Your task to perform on an android device: turn on data saver in the chrome app Image 0: 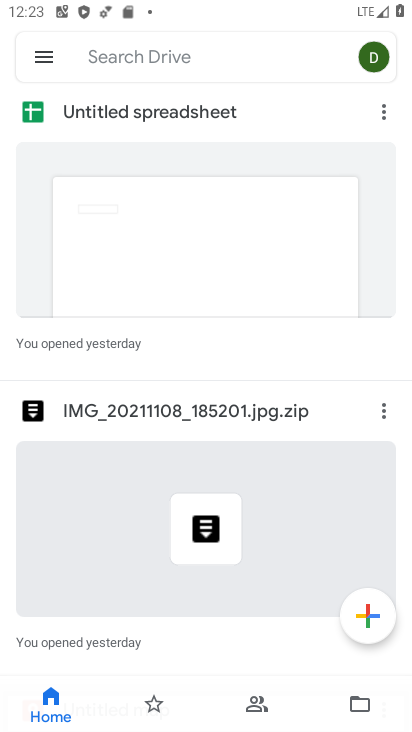
Step 0: press home button
Your task to perform on an android device: turn on data saver in the chrome app Image 1: 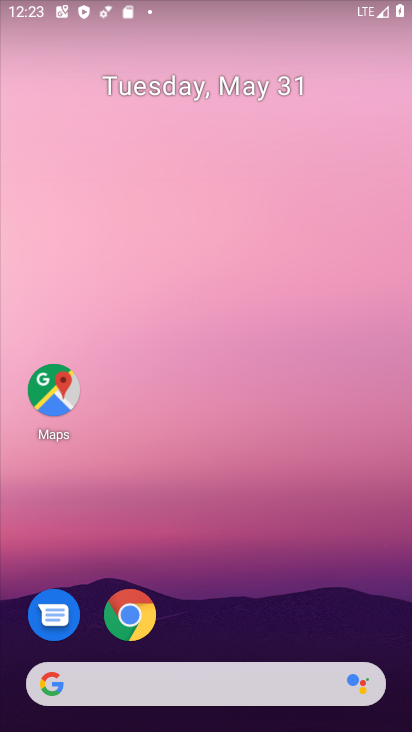
Step 1: click (133, 607)
Your task to perform on an android device: turn on data saver in the chrome app Image 2: 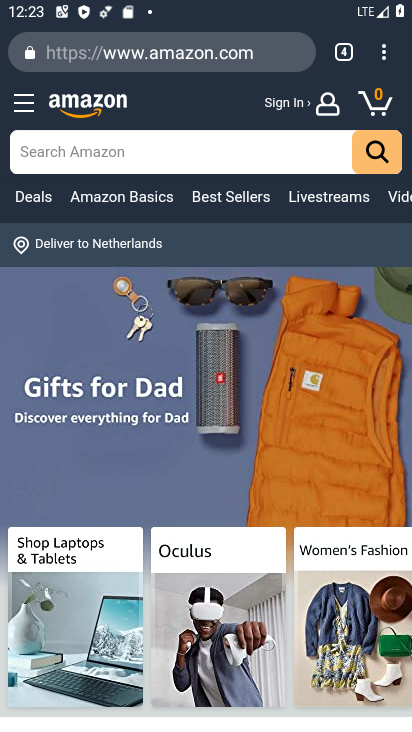
Step 2: click (389, 52)
Your task to perform on an android device: turn on data saver in the chrome app Image 3: 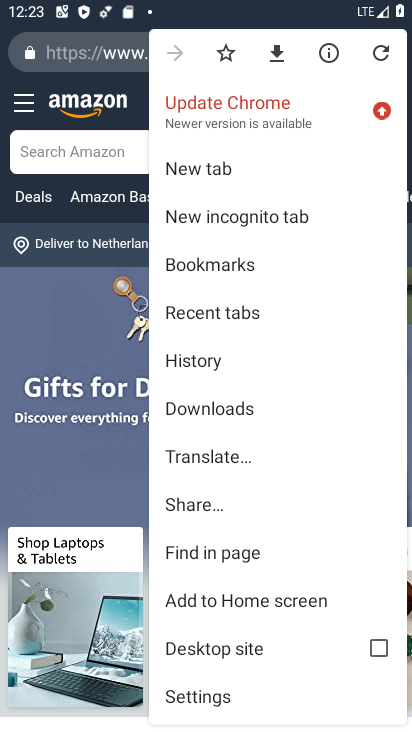
Step 3: click (193, 690)
Your task to perform on an android device: turn on data saver in the chrome app Image 4: 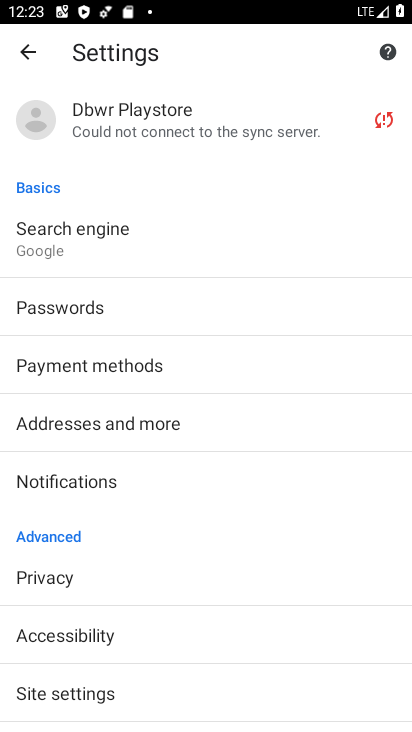
Step 4: drag from (132, 648) to (223, 157)
Your task to perform on an android device: turn on data saver in the chrome app Image 5: 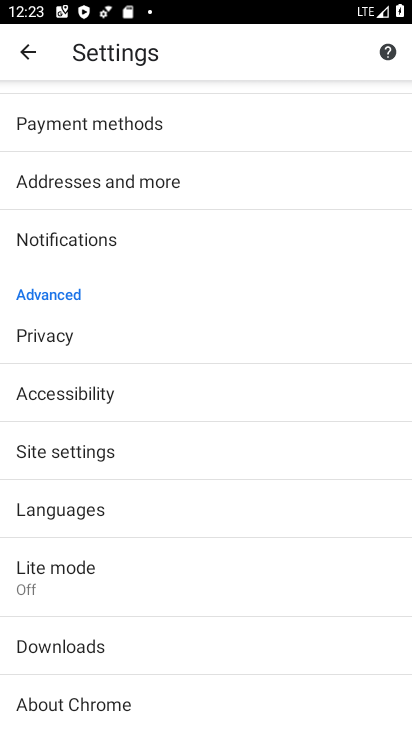
Step 5: click (64, 593)
Your task to perform on an android device: turn on data saver in the chrome app Image 6: 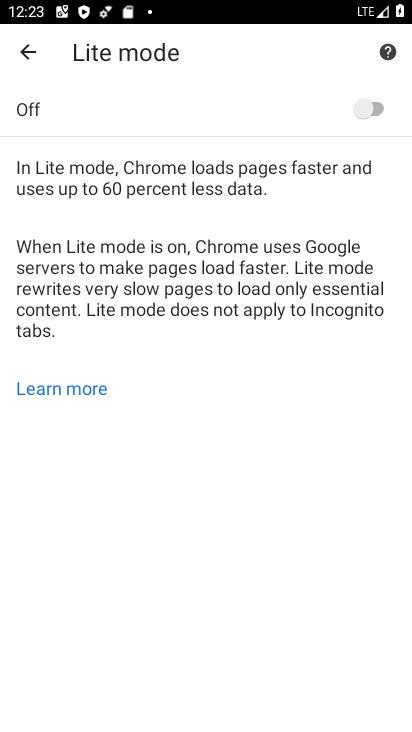
Step 6: click (392, 109)
Your task to perform on an android device: turn on data saver in the chrome app Image 7: 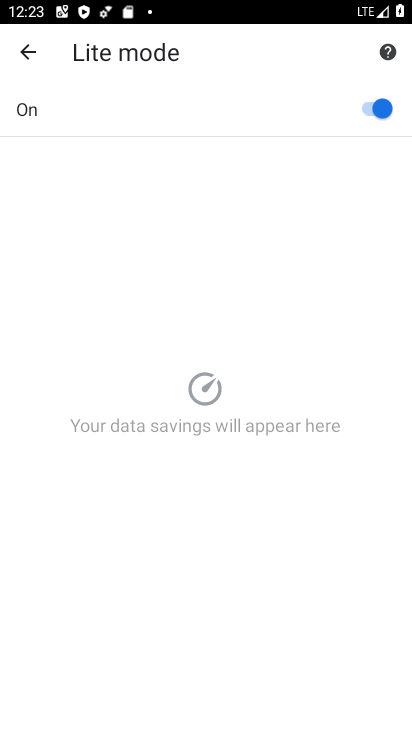
Step 7: task complete